Your task to perform on an android device: create a new album in the google photos Image 0: 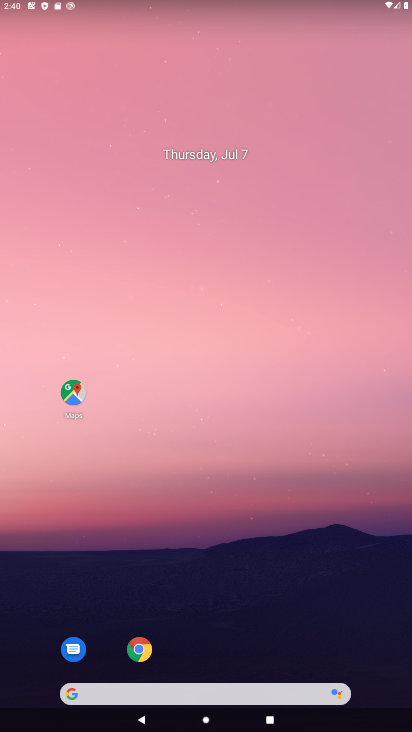
Step 0: drag from (376, 688) to (352, 63)
Your task to perform on an android device: create a new album in the google photos Image 1: 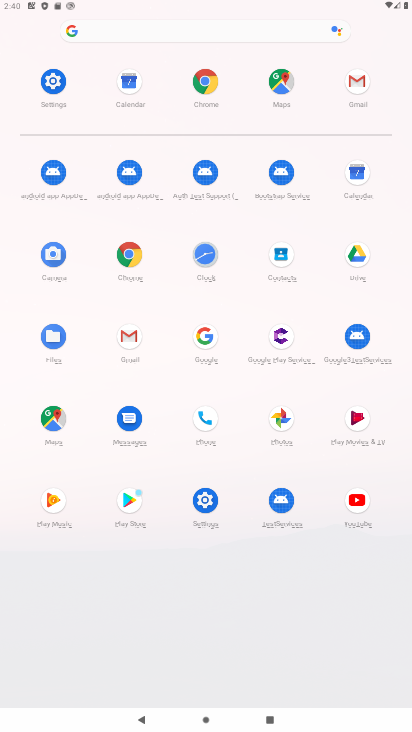
Step 1: click (271, 419)
Your task to perform on an android device: create a new album in the google photos Image 2: 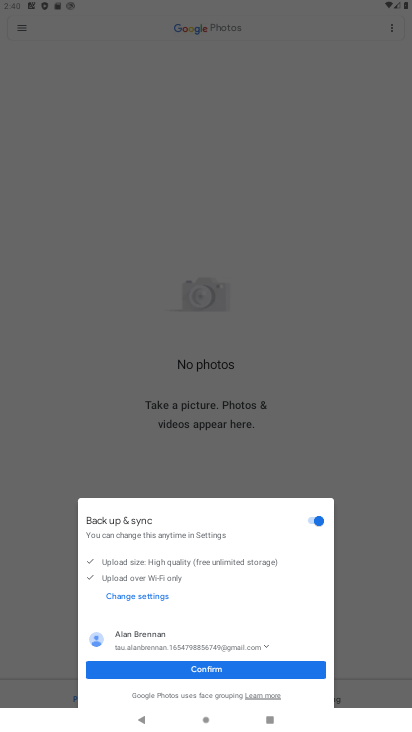
Step 2: click (243, 431)
Your task to perform on an android device: create a new album in the google photos Image 3: 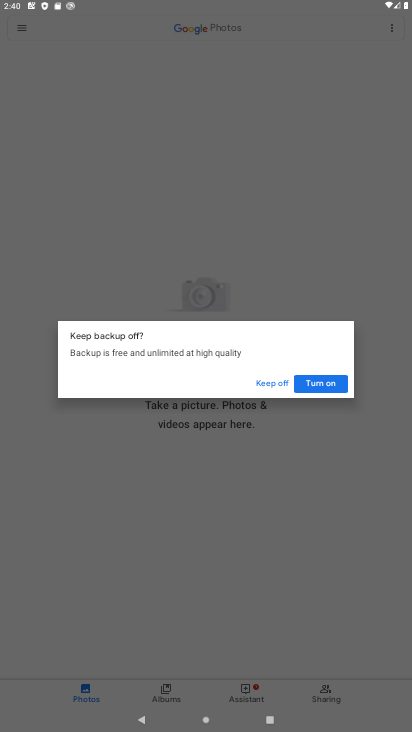
Step 3: click (315, 389)
Your task to perform on an android device: create a new album in the google photos Image 4: 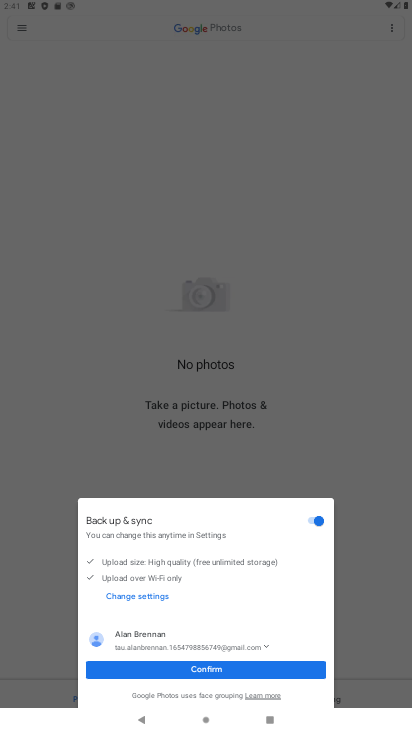
Step 4: click (187, 671)
Your task to perform on an android device: create a new album in the google photos Image 5: 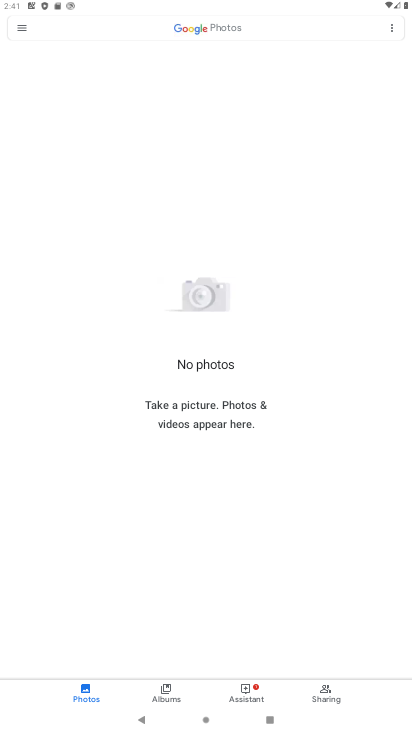
Step 5: click (167, 690)
Your task to perform on an android device: create a new album in the google photos Image 6: 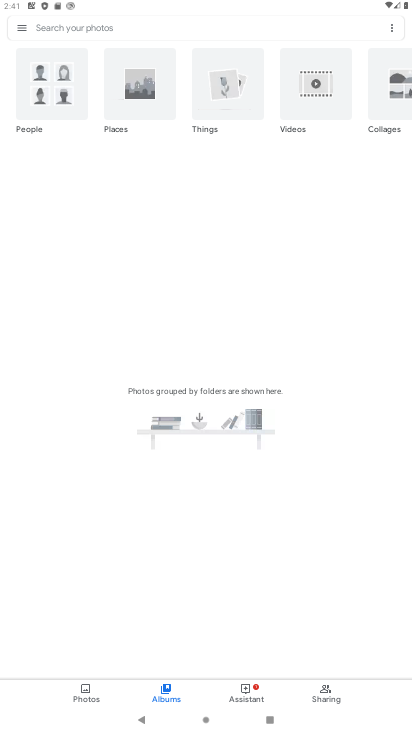
Step 6: click (87, 686)
Your task to perform on an android device: create a new album in the google photos Image 7: 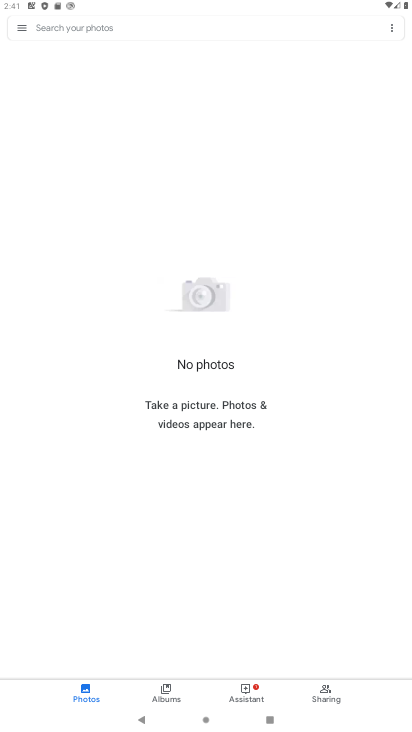
Step 7: click (170, 693)
Your task to perform on an android device: create a new album in the google photos Image 8: 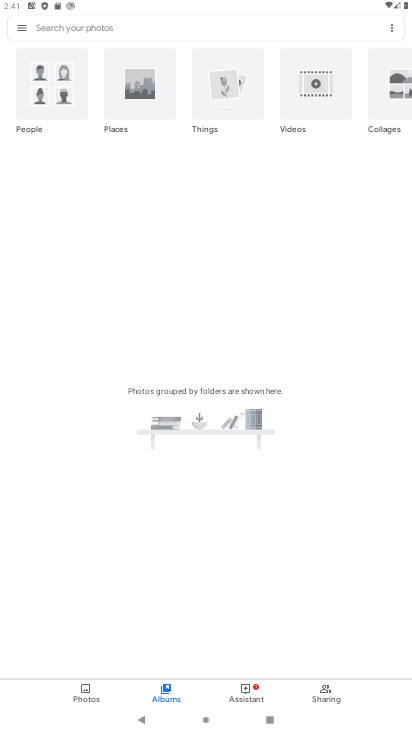
Step 8: click (388, 26)
Your task to perform on an android device: create a new album in the google photos Image 9: 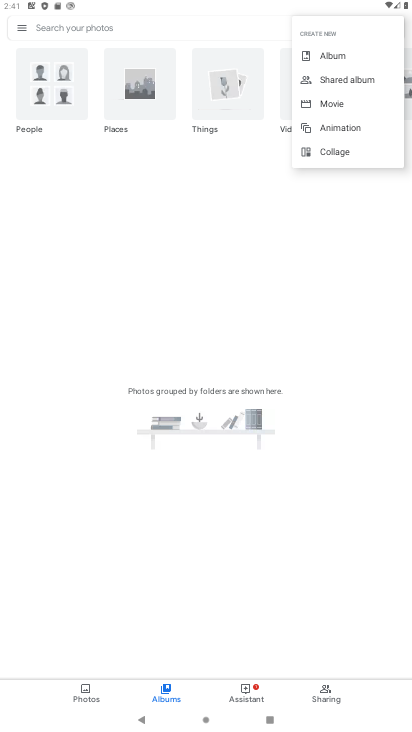
Step 9: click (322, 56)
Your task to perform on an android device: create a new album in the google photos Image 10: 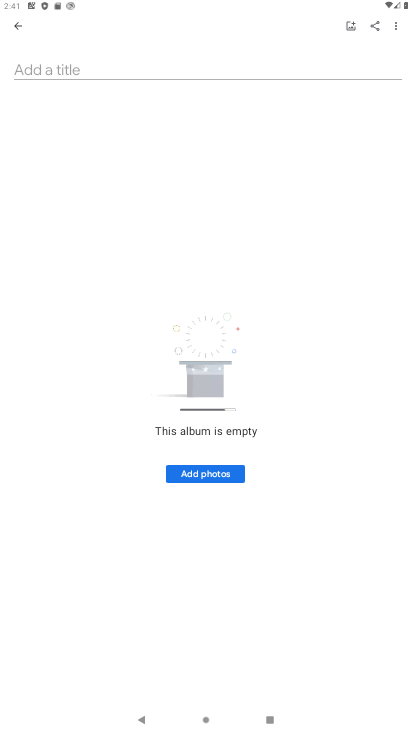
Step 10: task complete